Your task to perform on an android device: Open Google Chrome and click the shortcut for Amazon.com Image 0: 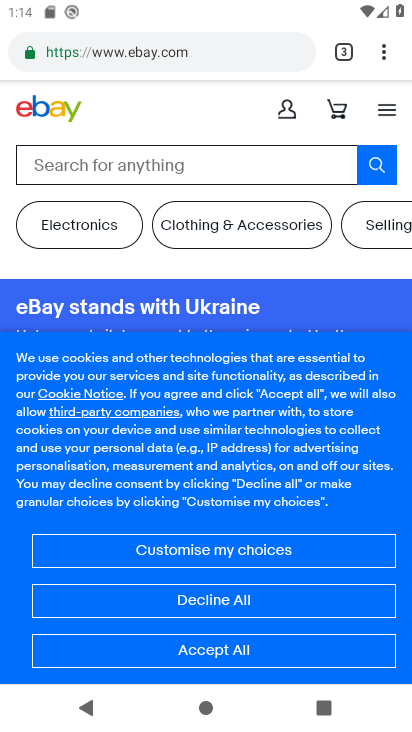
Step 0: click (363, 40)
Your task to perform on an android device: Open Google Chrome and click the shortcut for Amazon.com Image 1: 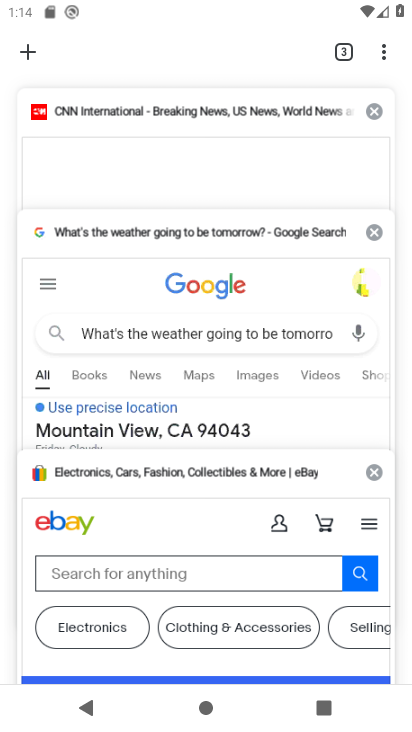
Step 1: click (386, 20)
Your task to perform on an android device: Open Google Chrome and click the shortcut for Amazon.com Image 2: 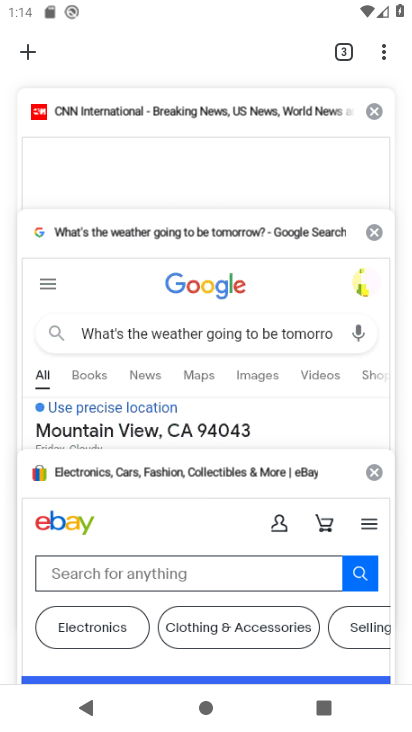
Step 2: click (41, 59)
Your task to perform on an android device: Open Google Chrome and click the shortcut for Amazon.com Image 3: 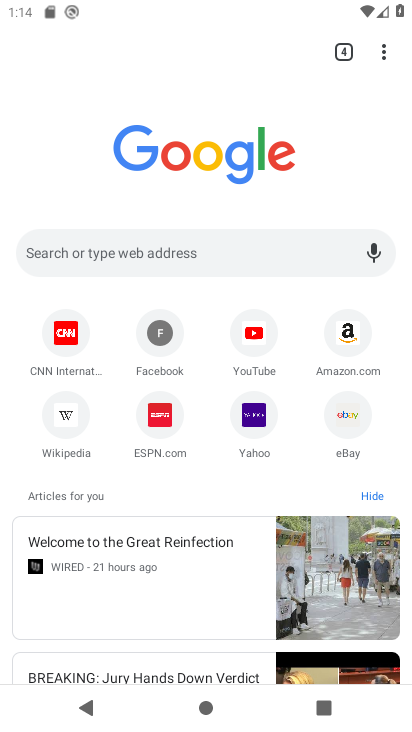
Step 3: click (333, 324)
Your task to perform on an android device: Open Google Chrome and click the shortcut for Amazon.com Image 4: 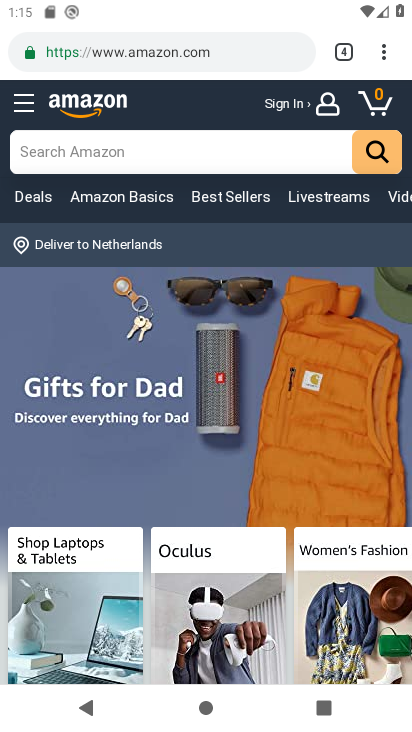
Step 4: task complete